Your task to perform on an android device: make emails show in primary in the gmail app Image 0: 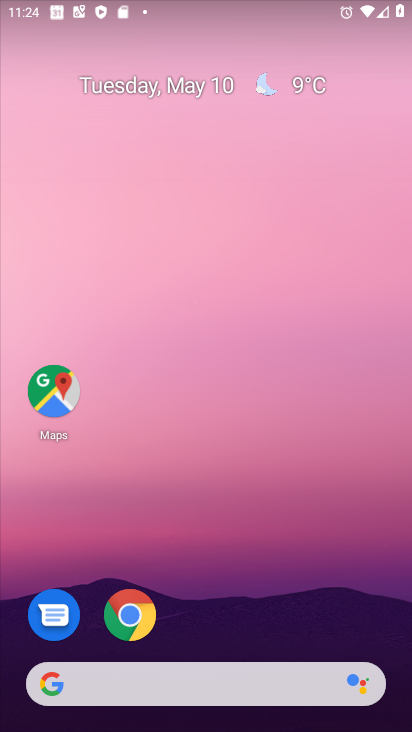
Step 0: drag from (216, 640) to (281, 136)
Your task to perform on an android device: make emails show in primary in the gmail app Image 1: 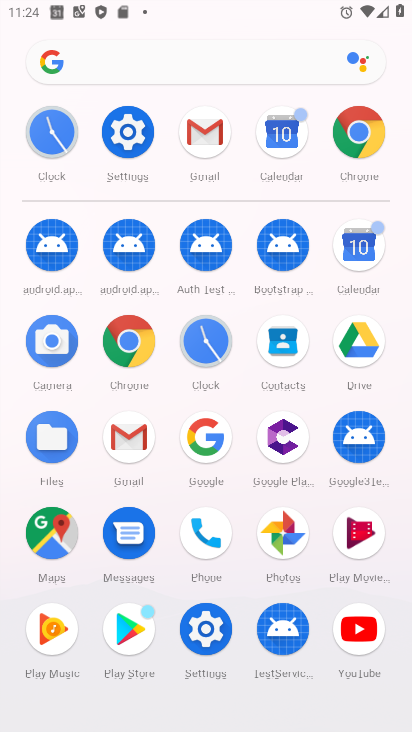
Step 1: click (119, 439)
Your task to perform on an android device: make emails show in primary in the gmail app Image 2: 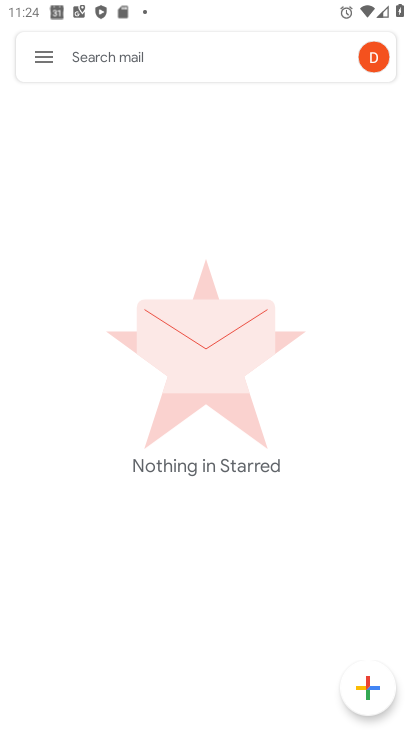
Step 2: click (43, 55)
Your task to perform on an android device: make emails show in primary in the gmail app Image 3: 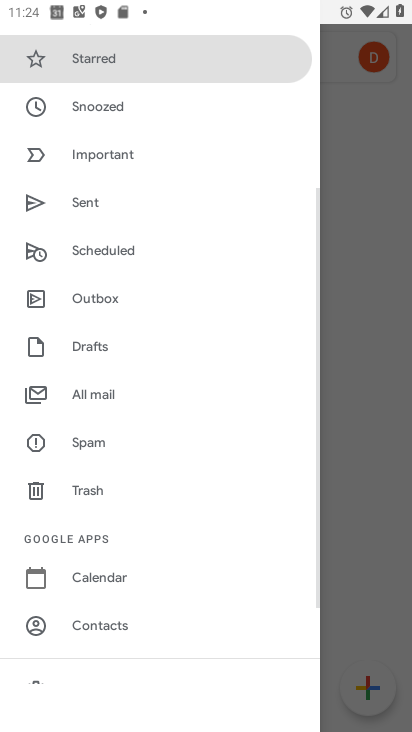
Step 3: drag from (111, 605) to (140, 280)
Your task to perform on an android device: make emails show in primary in the gmail app Image 4: 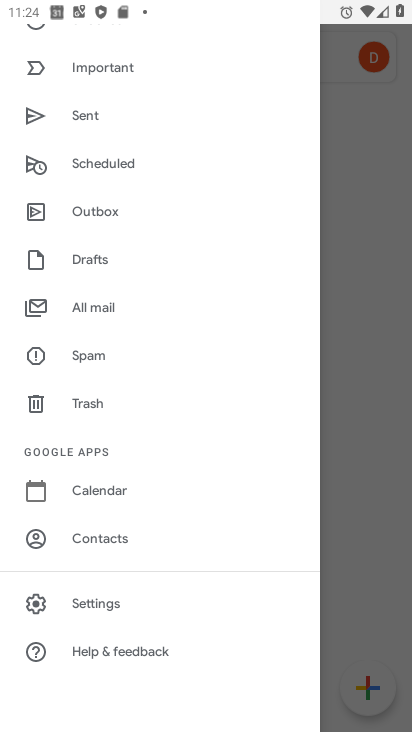
Step 4: click (122, 597)
Your task to perform on an android device: make emails show in primary in the gmail app Image 5: 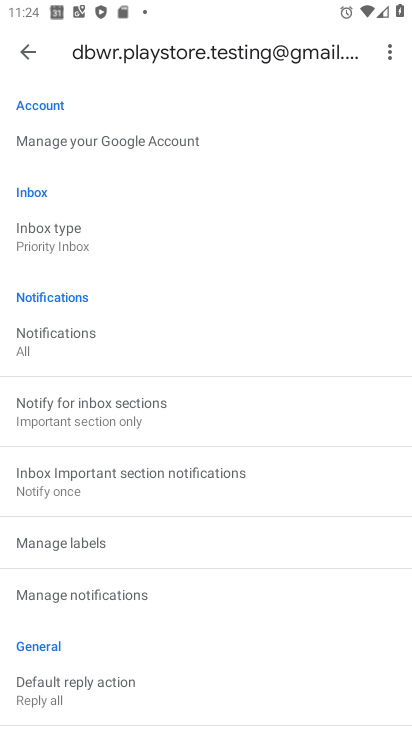
Step 5: drag from (131, 670) to (164, 257)
Your task to perform on an android device: make emails show in primary in the gmail app Image 6: 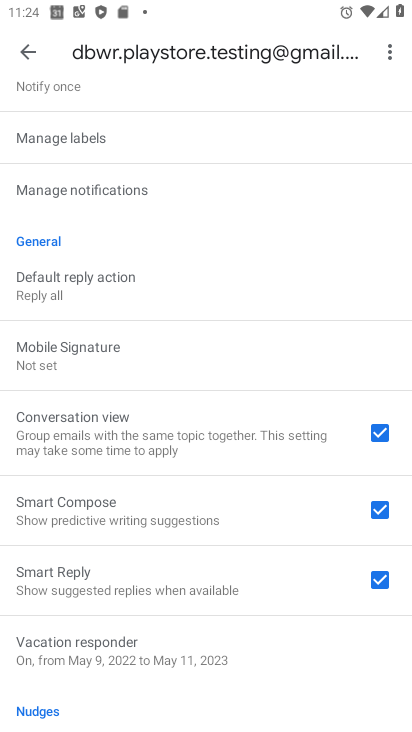
Step 6: drag from (130, 130) to (117, 727)
Your task to perform on an android device: make emails show in primary in the gmail app Image 7: 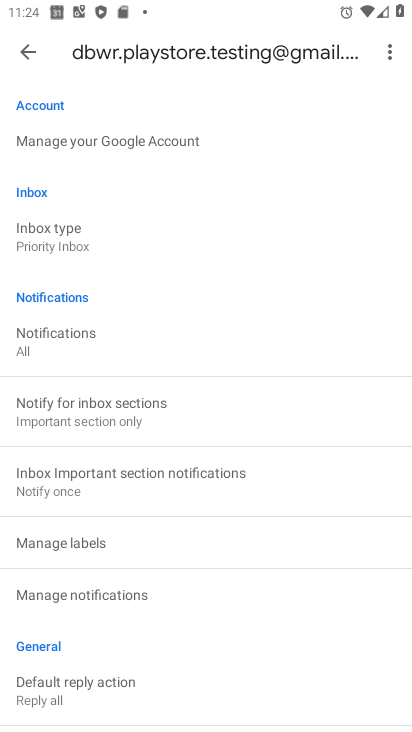
Step 7: click (103, 239)
Your task to perform on an android device: make emails show in primary in the gmail app Image 8: 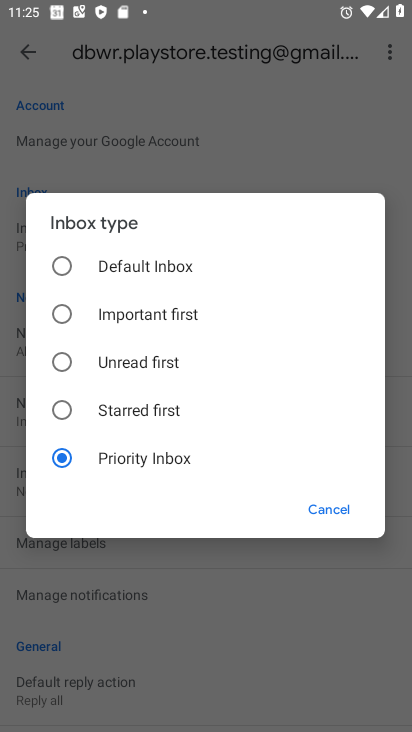
Step 8: click (70, 256)
Your task to perform on an android device: make emails show in primary in the gmail app Image 9: 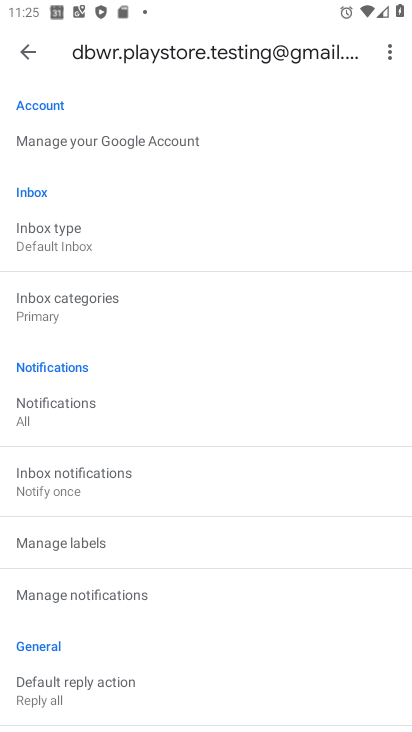
Step 9: task complete